Your task to perform on an android device: Go to privacy settings Image 0: 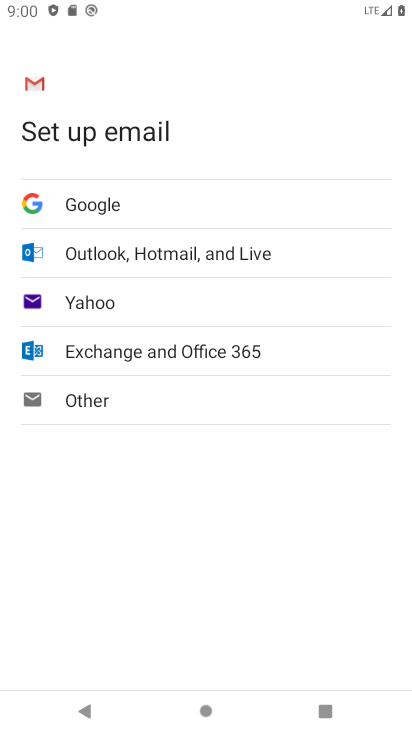
Step 0: press home button
Your task to perform on an android device: Go to privacy settings Image 1: 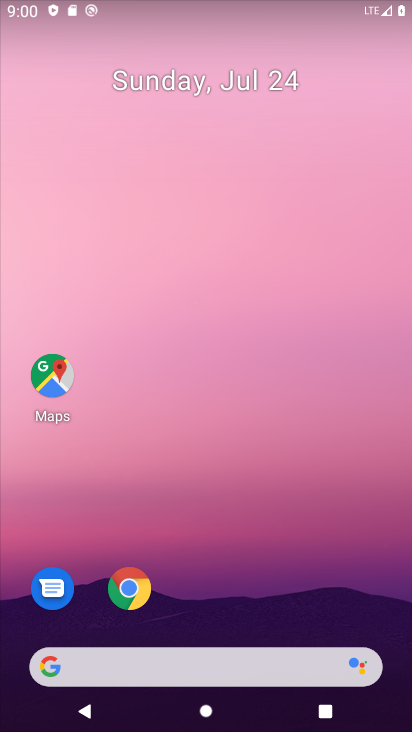
Step 1: drag from (248, 582) to (245, 64)
Your task to perform on an android device: Go to privacy settings Image 2: 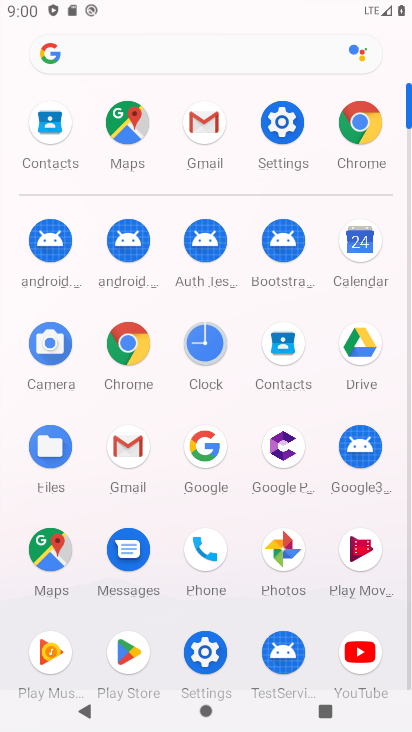
Step 2: click (293, 127)
Your task to perform on an android device: Go to privacy settings Image 3: 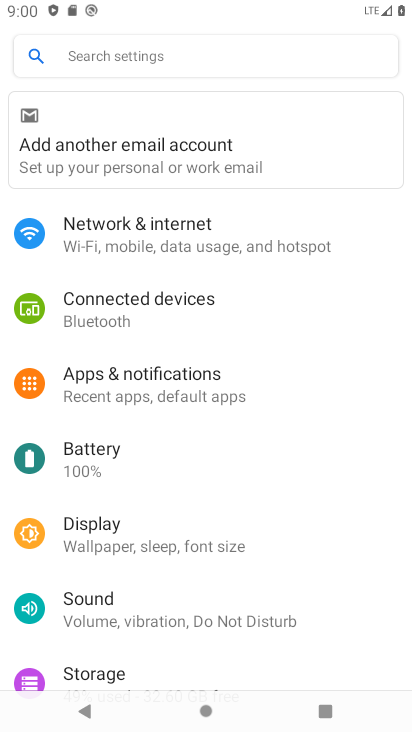
Step 3: drag from (253, 601) to (125, 20)
Your task to perform on an android device: Go to privacy settings Image 4: 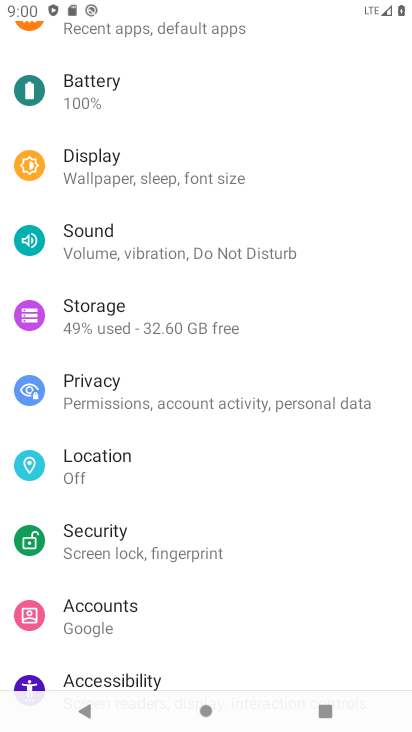
Step 4: click (162, 400)
Your task to perform on an android device: Go to privacy settings Image 5: 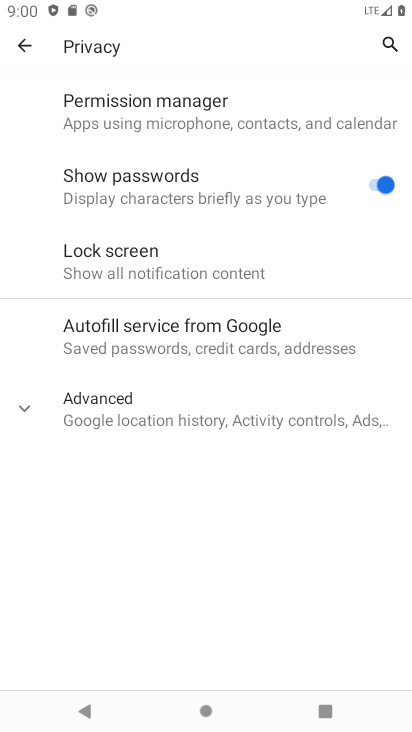
Step 5: task complete